Your task to perform on an android device: Open notification settings Image 0: 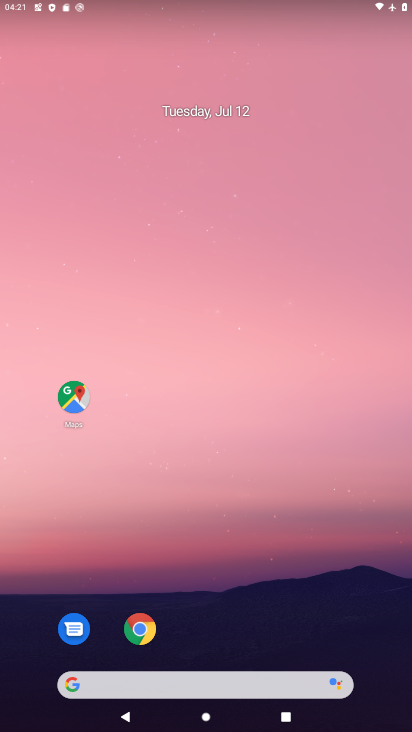
Step 0: drag from (307, 577) to (306, 43)
Your task to perform on an android device: Open notification settings Image 1: 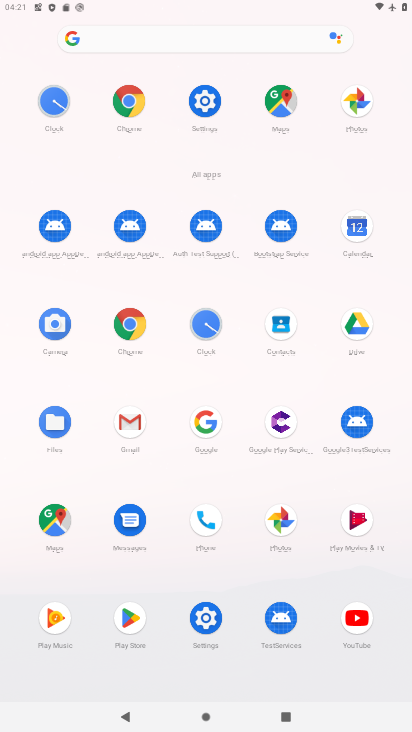
Step 1: click (197, 97)
Your task to perform on an android device: Open notification settings Image 2: 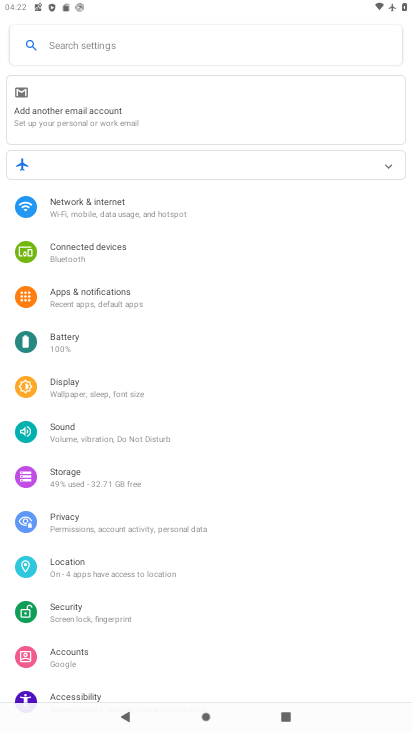
Step 2: click (115, 297)
Your task to perform on an android device: Open notification settings Image 3: 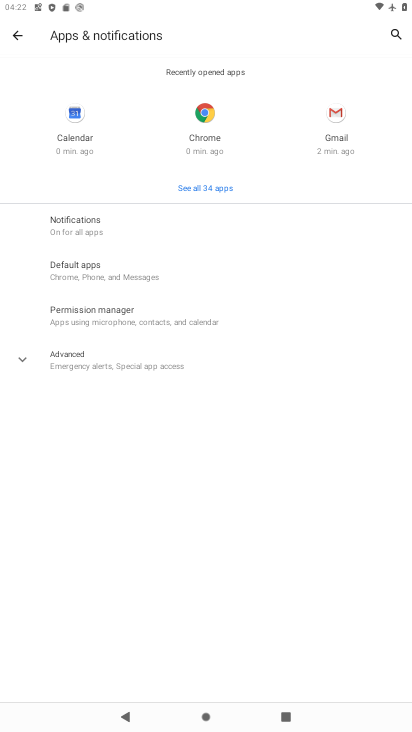
Step 3: click (94, 221)
Your task to perform on an android device: Open notification settings Image 4: 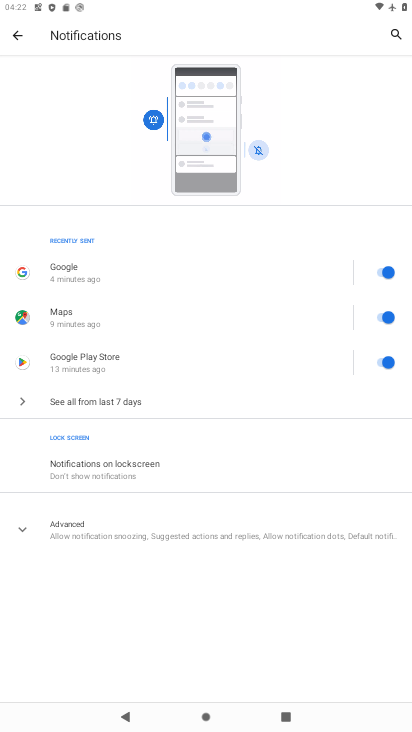
Step 4: task complete